Your task to perform on an android device: Show the shopping cart on ebay.com. Image 0: 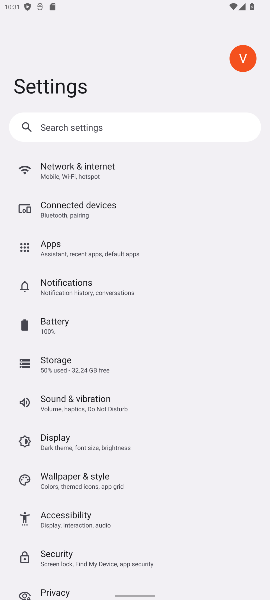
Step 0: press home button
Your task to perform on an android device: Show the shopping cart on ebay.com. Image 1: 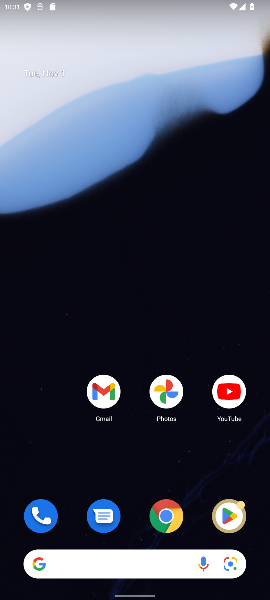
Step 1: click (161, 505)
Your task to perform on an android device: Show the shopping cart on ebay.com. Image 2: 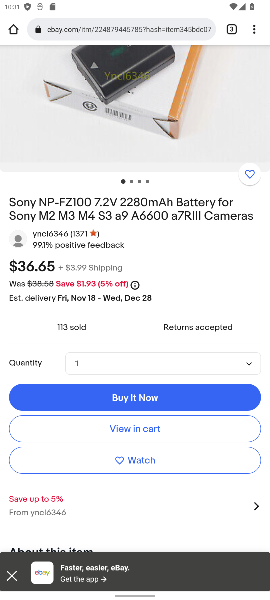
Step 2: click (232, 28)
Your task to perform on an android device: Show the shopping cart on ebay.com. Image 3: 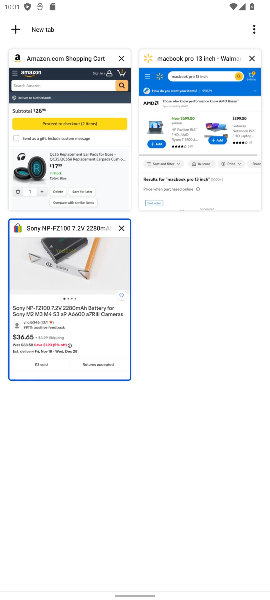
Step 3: click (61, 256)
Your task to perform on an android device: Show the shopping cart on ebay.com. Image 4: 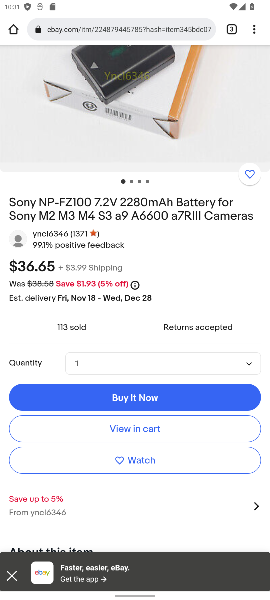
Step 4: click (246, 84)
Your task to perform on an android device: Show the shopping cart on ebay.com. Image 5: 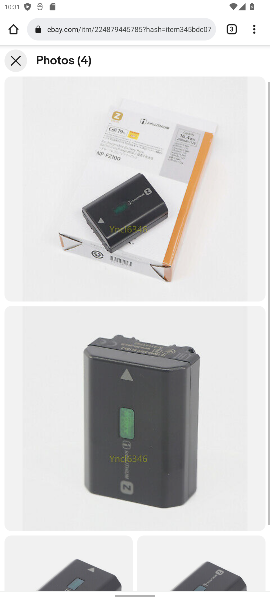
Step 5: click (14, 58)
Your task to perform on an android device: Show the shopping cart on ebay.com. Image 6: 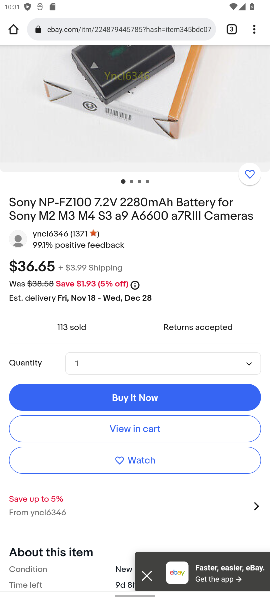
Step 6: click (145, 433)
Your task to perform on an android device: Show the shopping cart on ebay.com. Image 7: 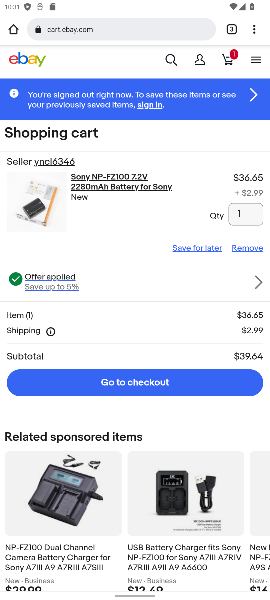
Step 7: task complete